Your task to perform on an android device: Search for "razer blade" on ebay.com, select the first entry, add it to the cart, then select checkout. Image 0: 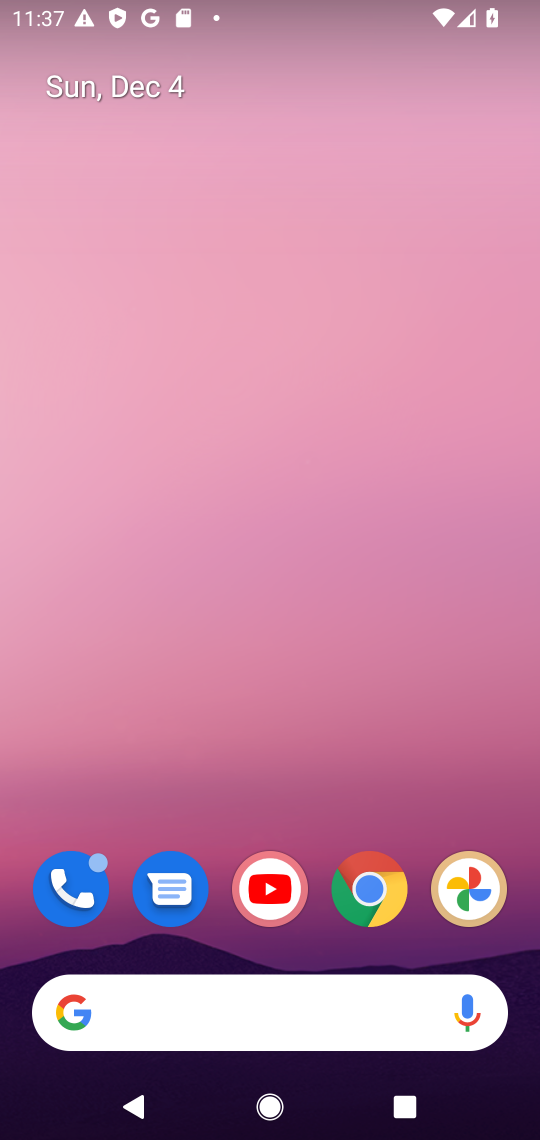
Step 0: click (360, 890)
Your task to perform on an android device: Search for "razer blade" on ebay.com, select the first entry, add it to the cart, then select checkout. Image 1: 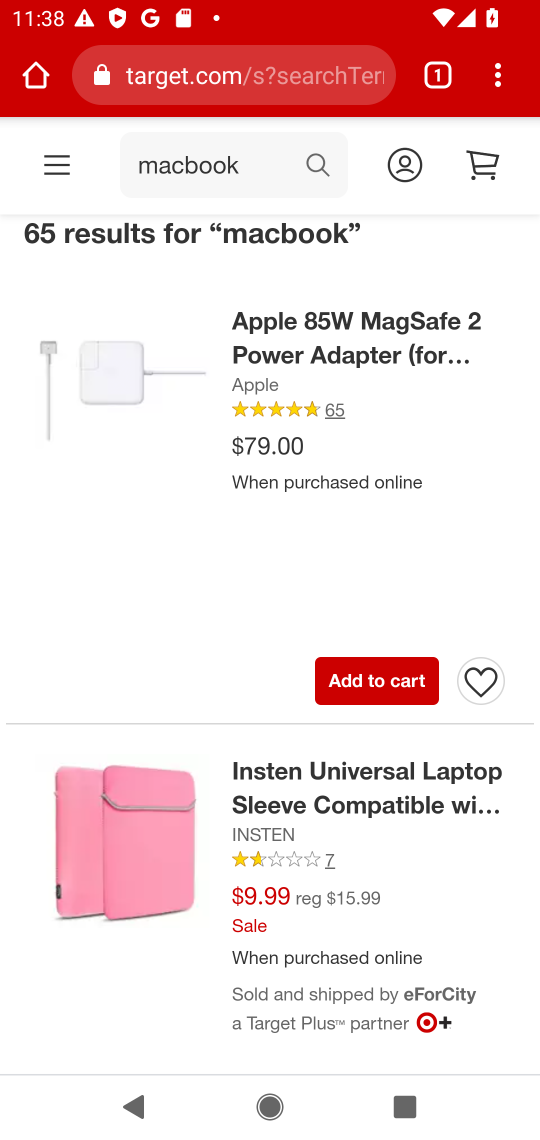
Step 1: click (271, 82)
Your task to perform on an android device: Search for "razer blade" on ebay.com, select the first entry, add it to the cart, then select checkout. Image 2: 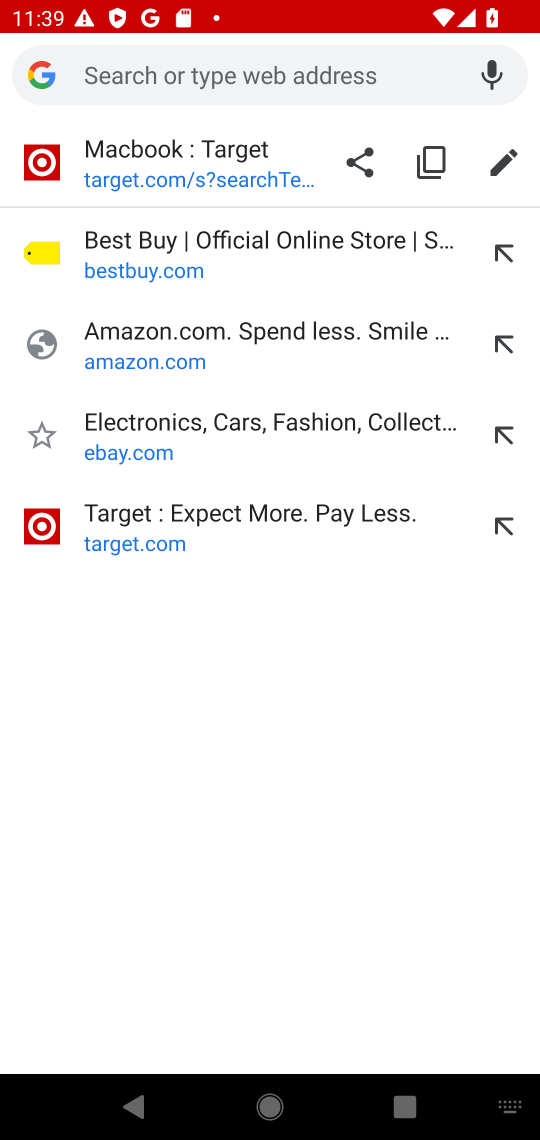
Step 2: click (230, 419)
Your task to perform on an android device: Search for "razer blade" on ebay.com, select the first entry, add it to the cart, then select checkout. Image 3: 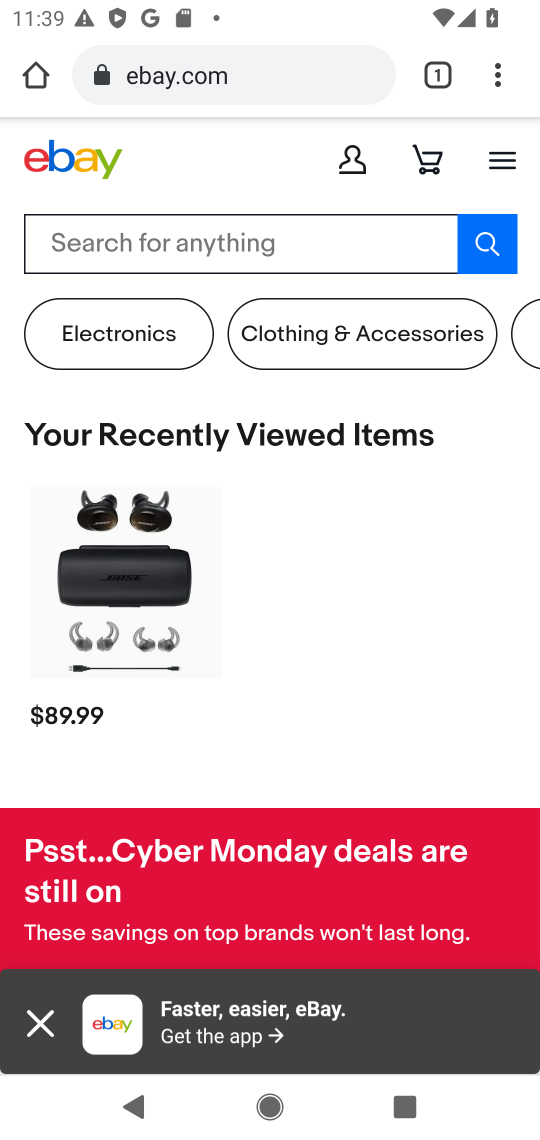
Step 3: click (379, 229)
Your task to perform on an android device: Search for "razer blade" on ebay.com, select the first entry, add it to the cart, then select checkout. Image 4: 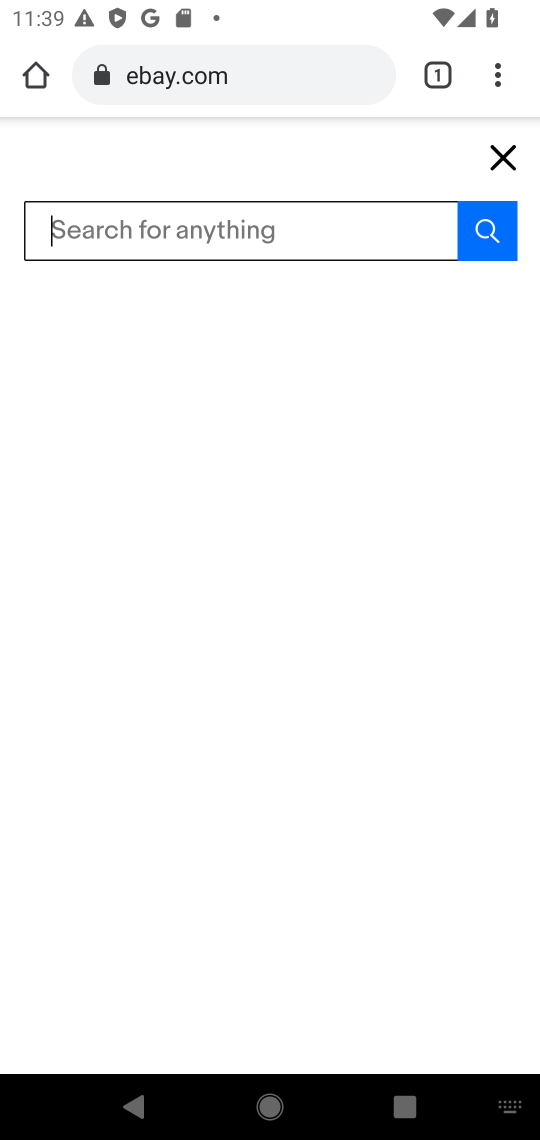
Step 4: type "razer blade"
Your task to perform on an android device: Search for "razer blade" on ebay.com, select the first entry, add it to the cart, then select checkout. Image 5: 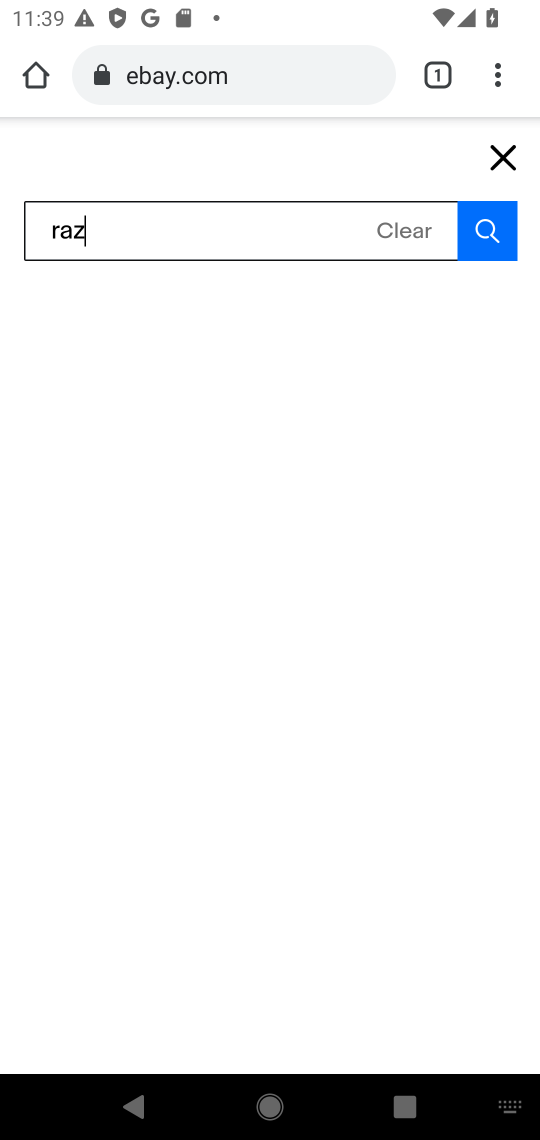
Step 5: press enter
Your task to perform on an android device: Search for "razer blade" on ebay.com, select the first entry, add it to the cart, then select checkout. Image 6: 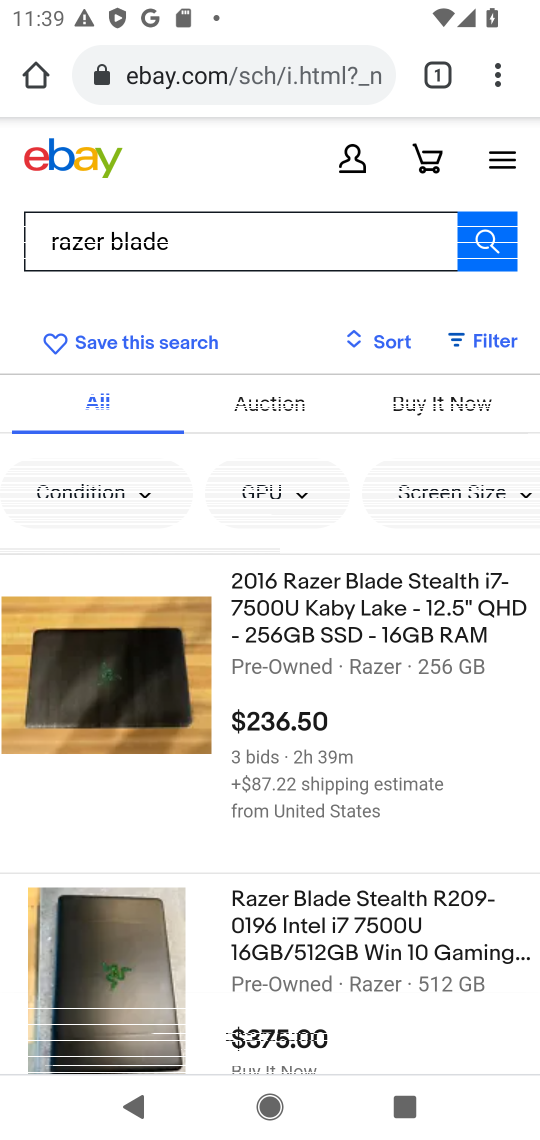
Step 6: click (156, 682)
Your task to perform on an android device: Search for "razer blade" on ebay.com, select the first entry, add it to the cart, then select checkout. Image 7: 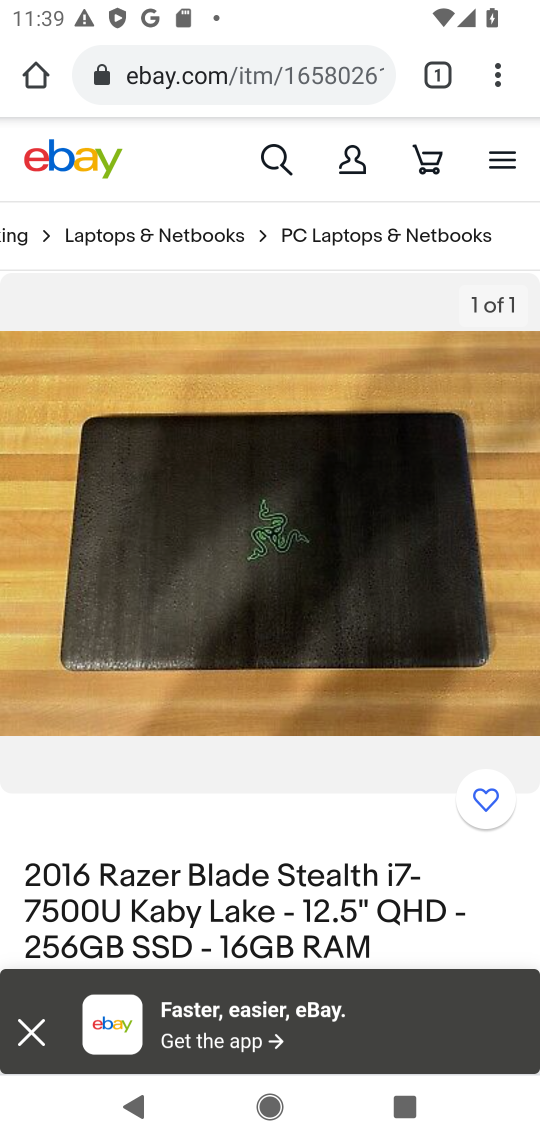
Step 7: drag from (365, 781) to (423, 231)
Your task to perform on an android device: Search for "razer blade" on ebay.com, select the first entry, add it to the cart, then select checkout. Image 8: 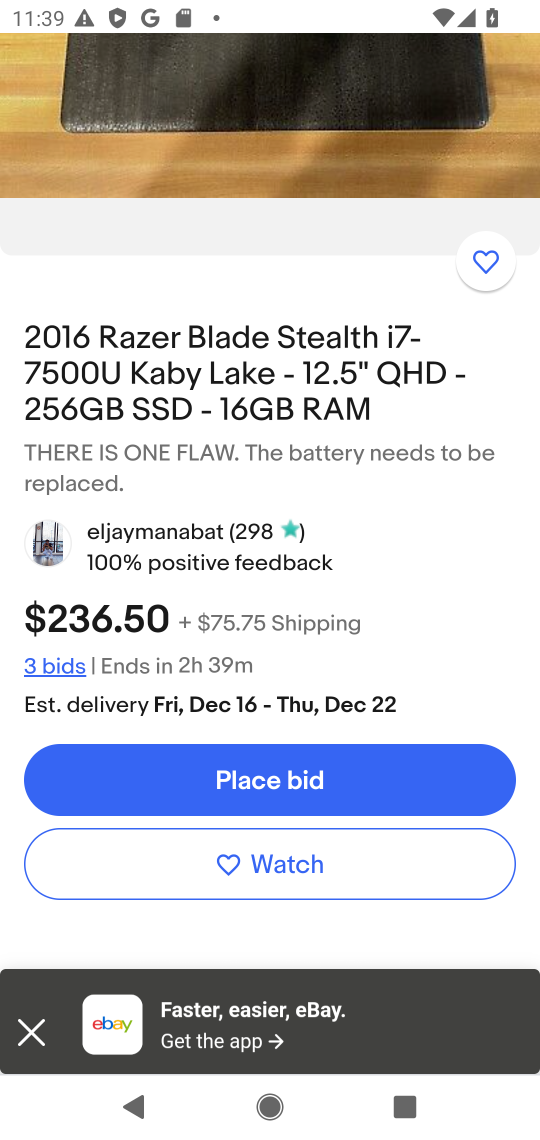
Step 8: press back button
Your task to perform on an android device: Search for "razer blade" on ebay.com, select the first entry, add it to the cart, then select checkout. Image 9: 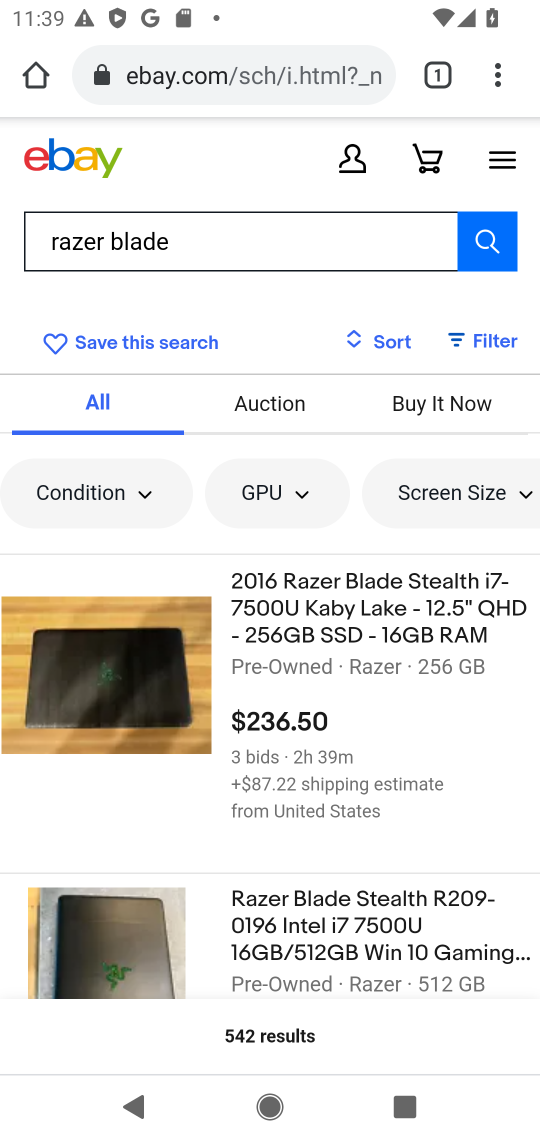
Step 9: click (116, 896)
Your task to perform on an android device: Search for "razer blade" on ebay.com, select the first entry, add it to the cart, then select checkout. Image 10: 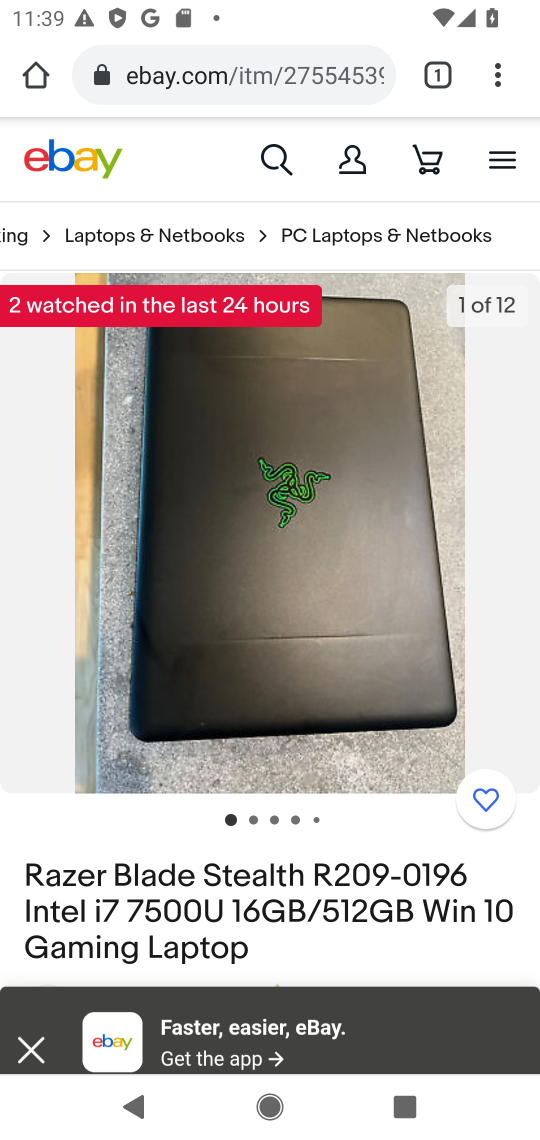
Step 10: drag from (325, 819) to (432, 292)
Your task to perform on an android device: Search for "razer blade" on ebay.com, select the first entry, add it to the cart, then select checkout. Image 11: 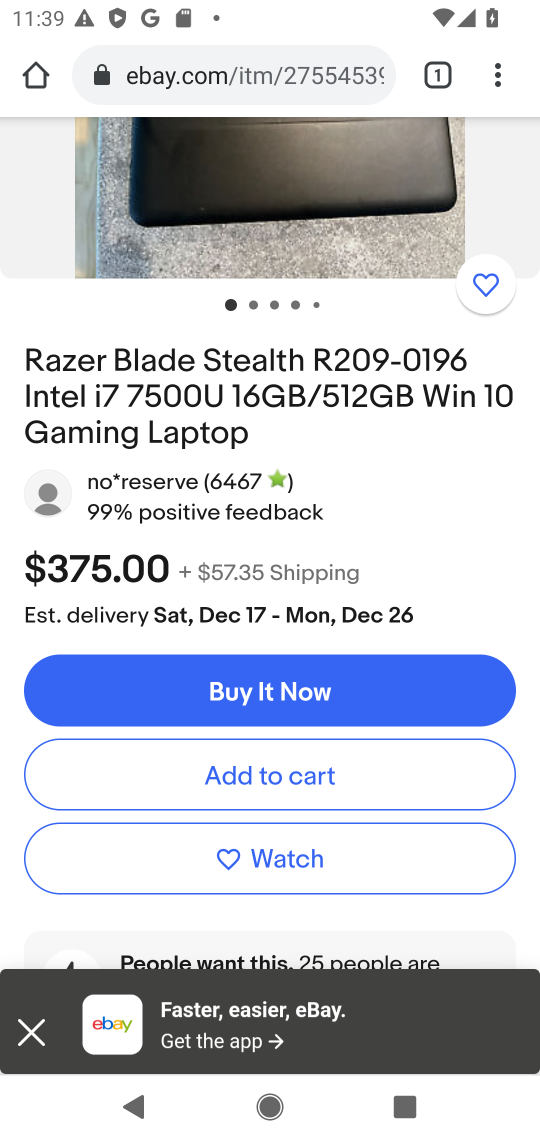
Step 11: click (306, 778)
Your task to perform on an android device: Search for "razer blade" on ebay.com, select the first entry, add it to the cart, then select checkout. Image 12: 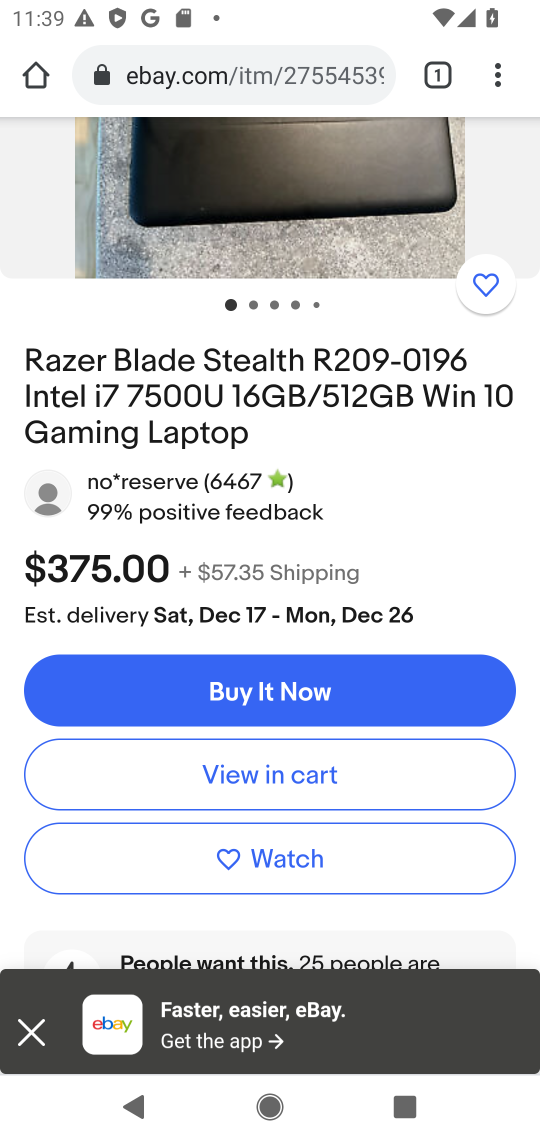
Step 12: click (295, 768)
Your task to perform on an android device: Search for "razer blade" on ebay.com, select the first entry, add it to the cart, then select checkout. Image 13: 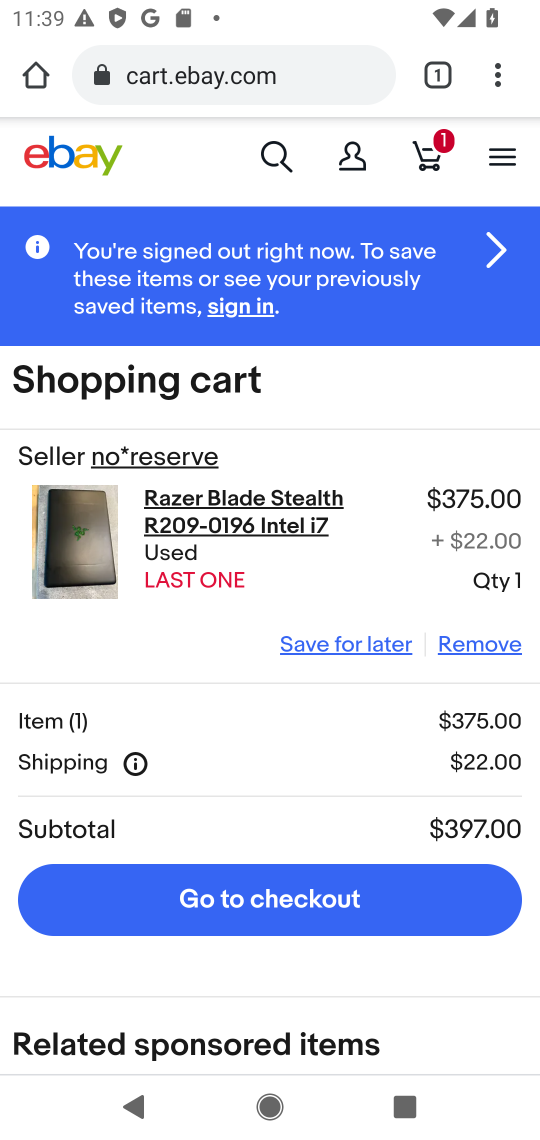
Step 13: click (344, 905)
Your task to perform on an android device: Search for "razer blade" on ebay.com, select the first entry, add it to the cart, then select checkout. Image 14: 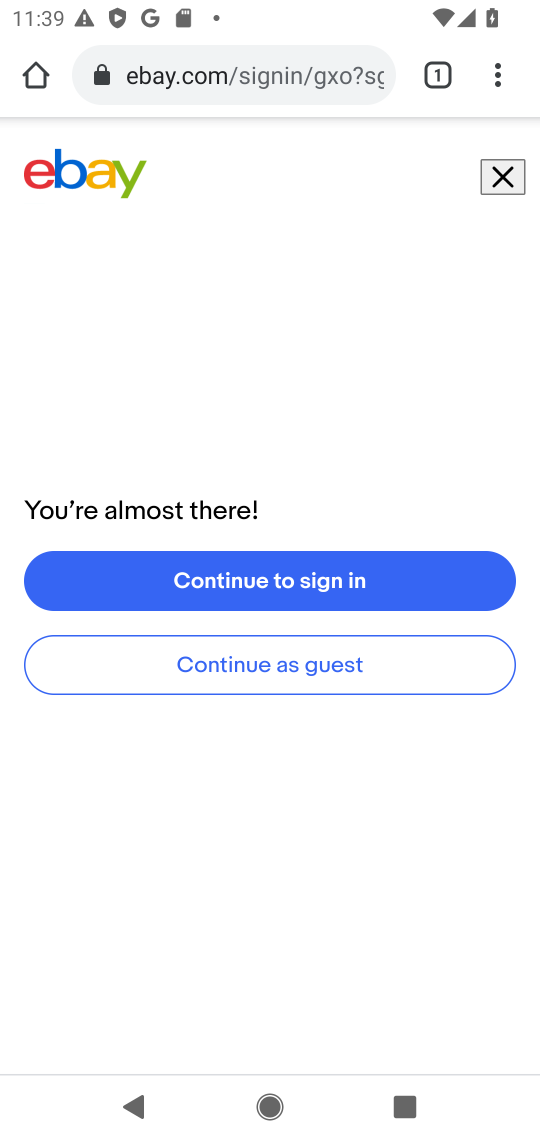
Step 14: task complete